Your task to perform on an android device: remove spam from my inbox in the gmail app Image 0: 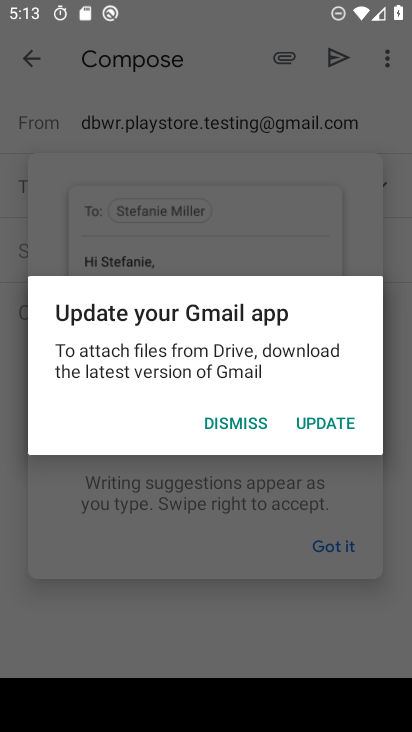
Step 0: press home button
Your task to perform on an android device: remove spam from my inbox in the gmail app Image 1: 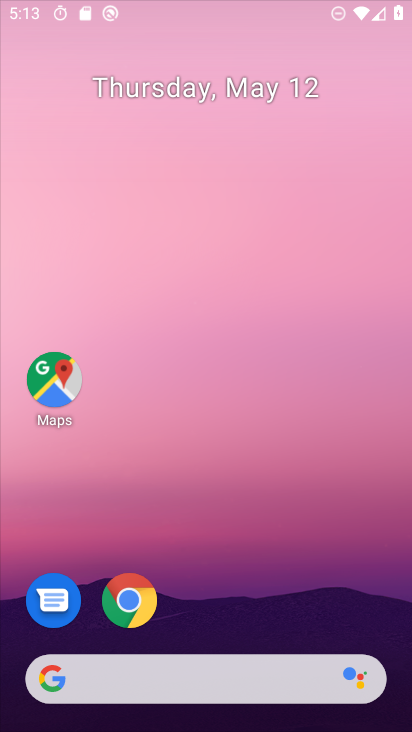
Step 1: drag from (171, 609) to (258, 102)
Your task to perform on an android device: remove spam from my inbox in the gmail app Image 2: 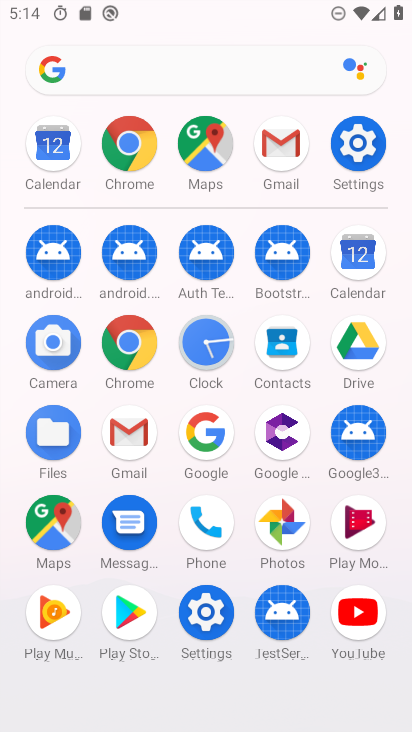
Step 2: click (129, 438)
Your task to perform on an android device: remove spam from my inbox in the gmail app Image 3: 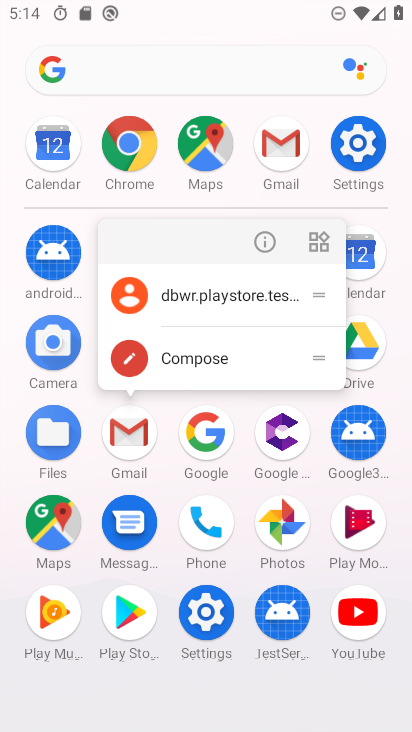
Step 3: click (269, 235)
Your task to perform on an android device: remove spam from my inbox in the gmail app Image 4: 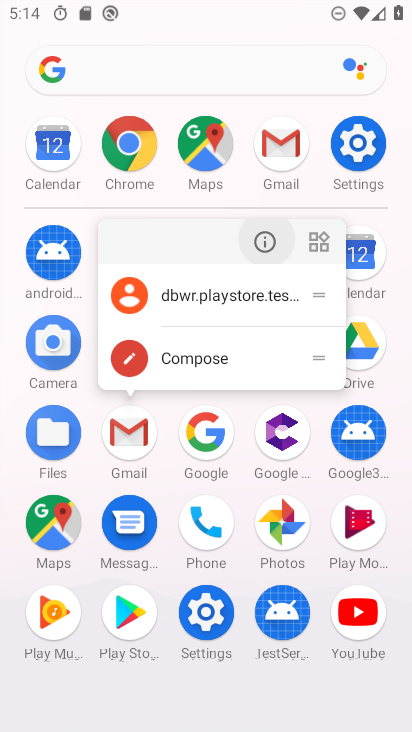
Step 4: click (269, 235)
Your task to perform on an android device: remove spam from my inbox in the gmail app Image 5: 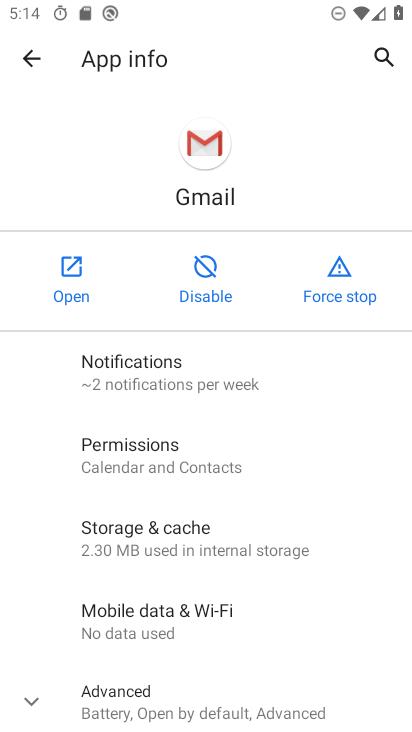
Step 5: click (96, 284)
Your task to perform on an android device: remove spam from my inbox in the gmail app Image 6: 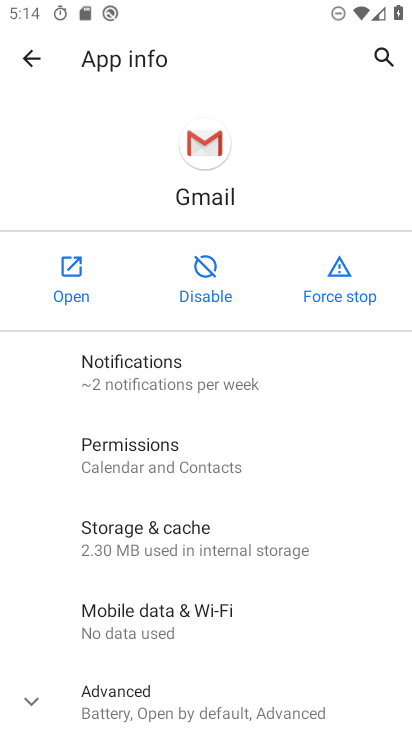
Step 6: click (96, 284)
Your task to perform on an android device: remove spam from my inbox in the gmail app Image 7: 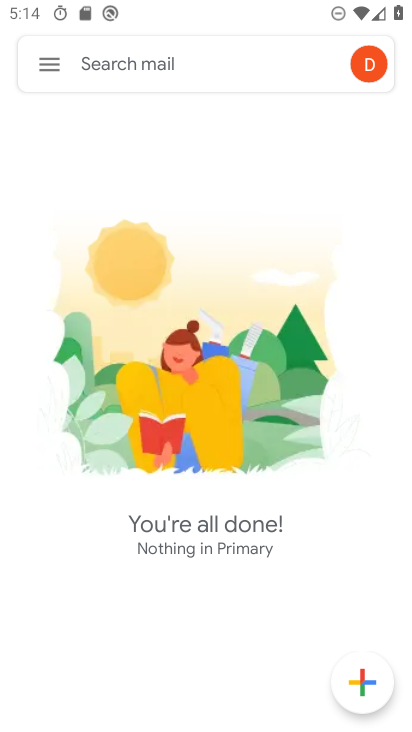
Step 7: click (44, 55)
Your task to perform on an android device: remove spam from my inbox in the gmail app Image 8: 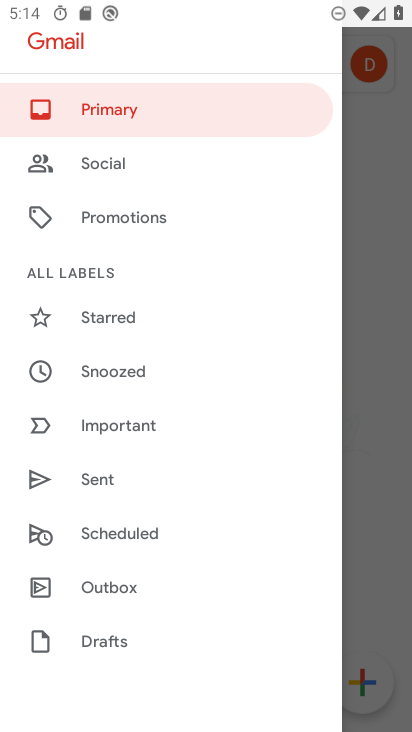
Step 8: drag from (156, 624) to (230, 118)
Your task to perform on an android device: remove spam from my inbox in the gmail app Image 9: 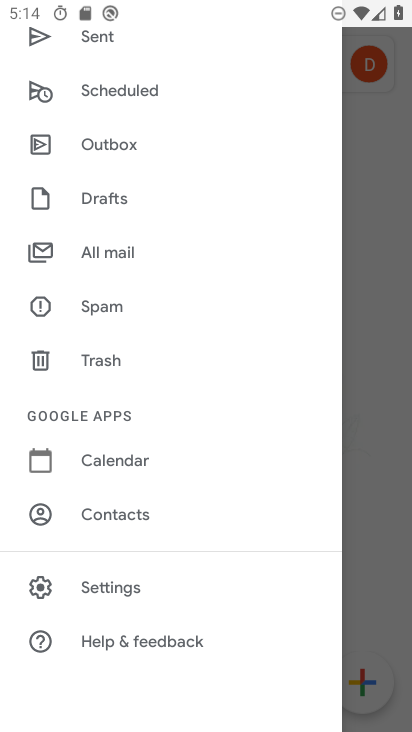
Step 9: click (108, 585)
Your task to perform on an android device: remove spam from my inbox in the gmail app Image 10: 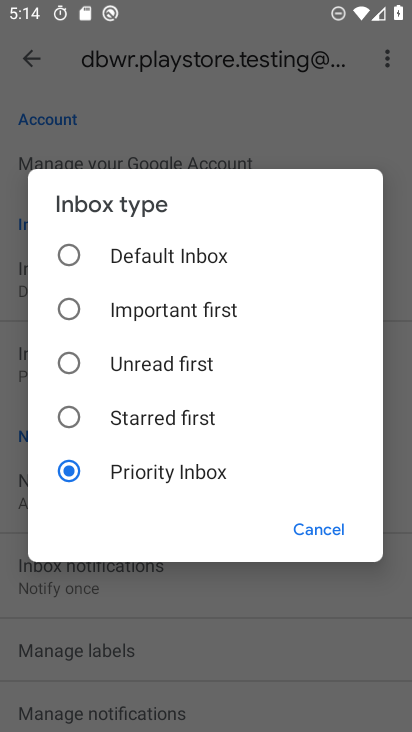
Step 10: click (328, 541)
Your task to perform on an android device: remove spam from my inbox in the gmail app Image 11: 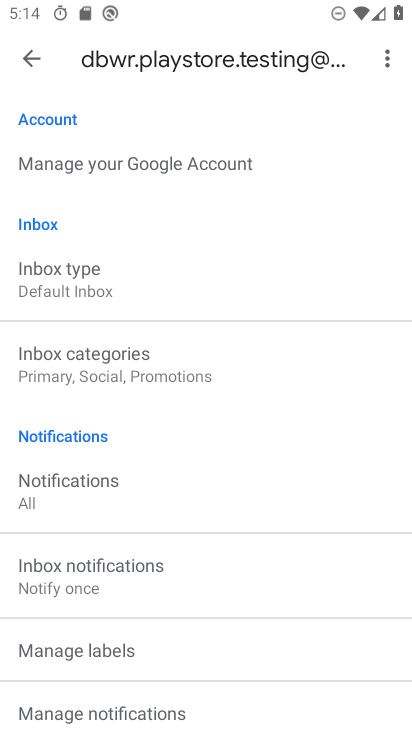
Step 11: press back button
Your task to perform on an android device: remove spam from my inbox in the gmail app Image 12: 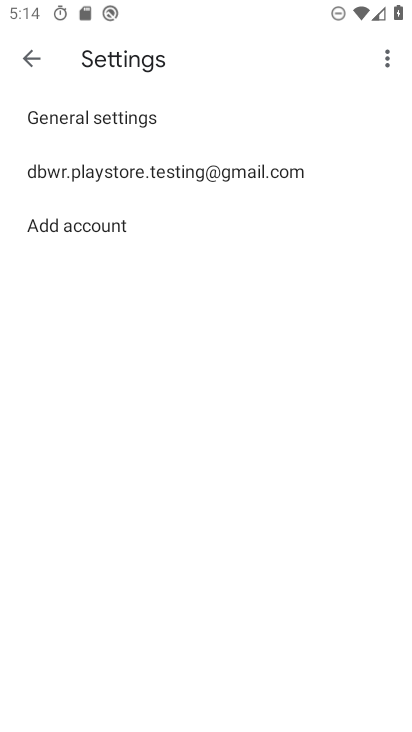
Step 12: press back button
Your task to perform on an android device: remove spam from my inbox in the gmail app Image 13: 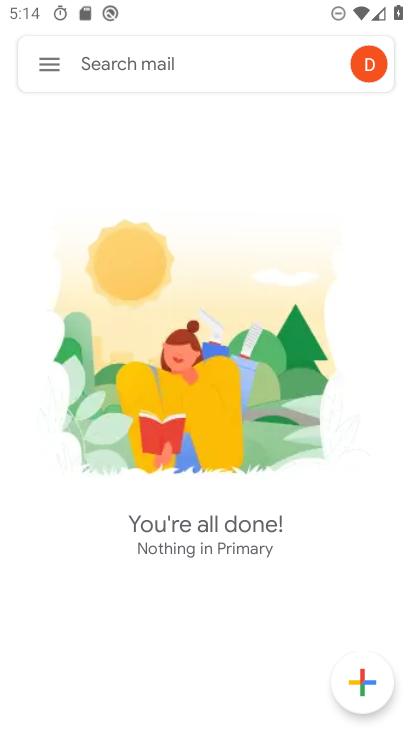
Step 13: click (49, 60)
Your task to perform on an android device: remove spam from my inbox in the gmail app Image 14: 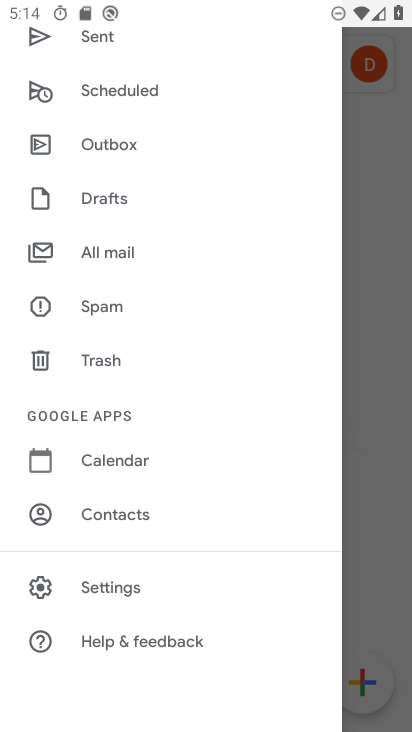
Step 14: click (137, 313)
Your task to perform on an android device: remove spam from my inbox in the gmail app Image 15: 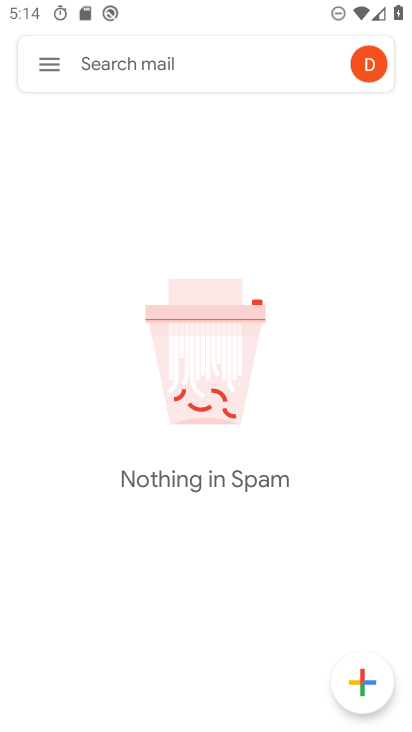
Step 15: click (43, 61)
Your task to perform on an android device: remove spam from my inbox in the gmail app Image 16: 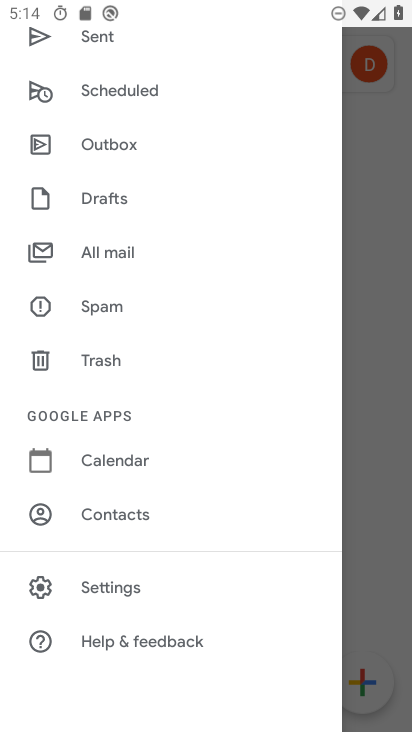
Step 16: click (111, 302)
Your task to perform on an android device: remove spam from my inbox in the gmail app Image 17: 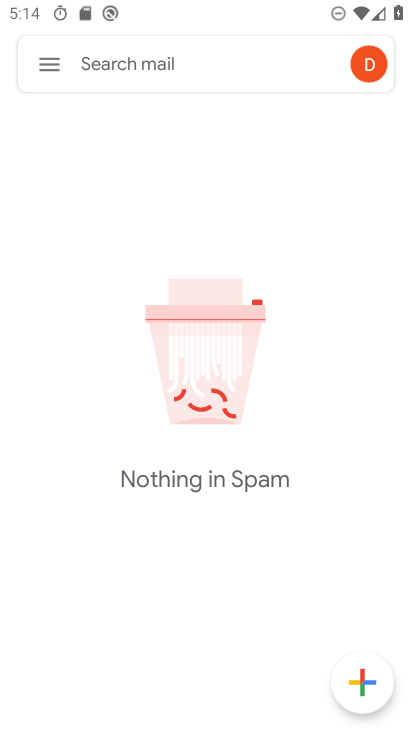
Step 17: click (67, 72)
Your task to perform on an android device: remove spam from my inbox in the gmail app Image 18: 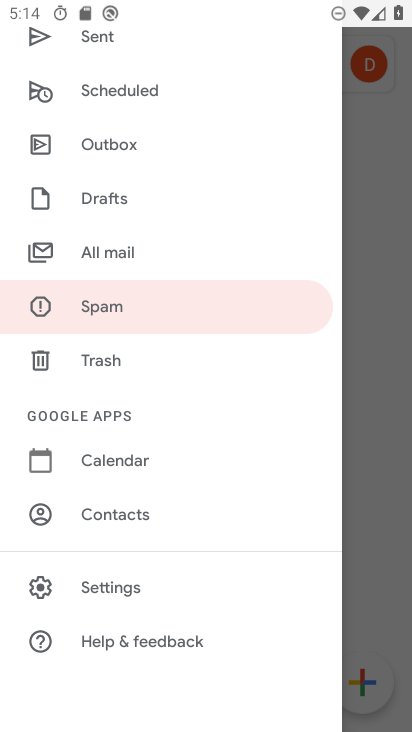
Step 18: click (117, 299)
Your task to perform on an android device: remove spam from my inbox in the gmail app Image 19: 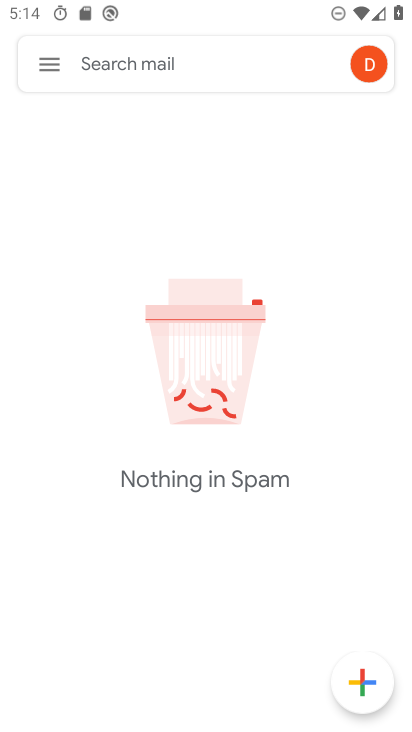
Step 19: task complete